Your task to perform on an android device: choose inbox layout in the gmail app Image 0: 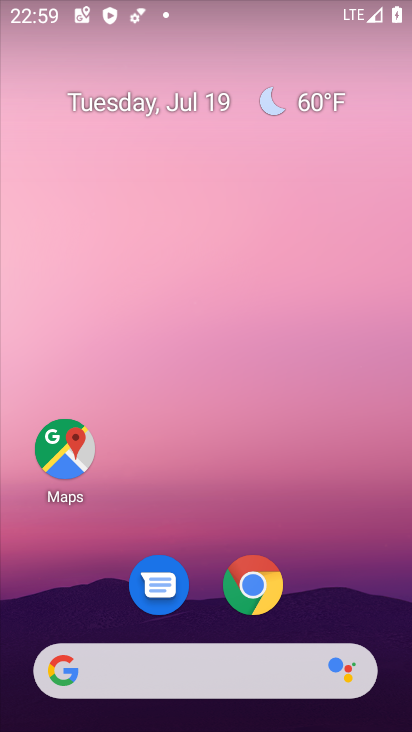
Step 0: drag from (191, 504) to (243, 77)
Your task to perform on an android device: choose inbox layout in the gmail app Image 1: 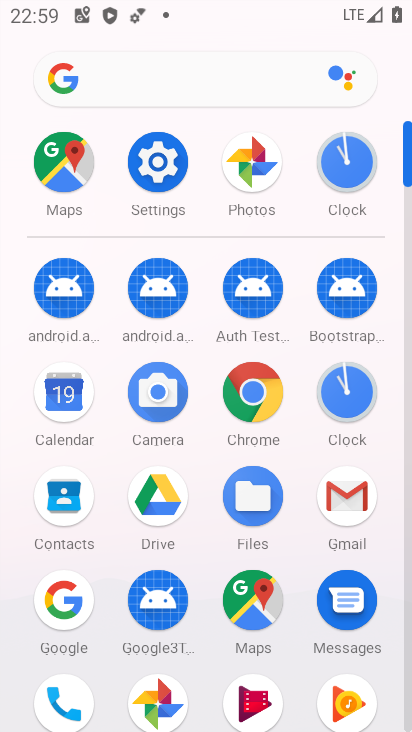
Step 1: click (345, 495)
Your task to perform on an android device: choose inbox layout in the gmail app Image 2: 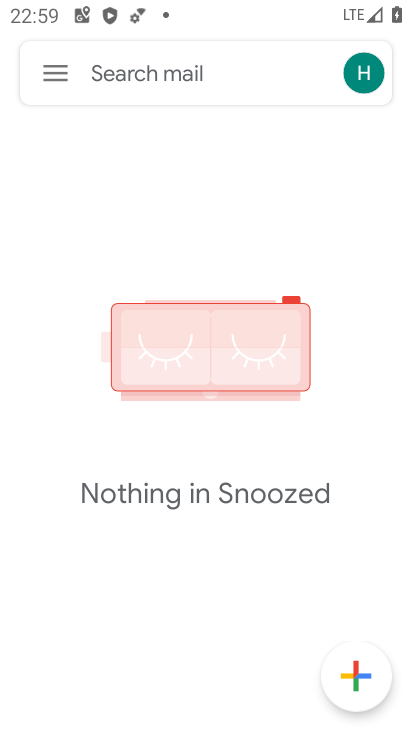
Step 2: click (60, 72)
Your task to perform on an android device: choose inbox layout in the gmail app Image 3: 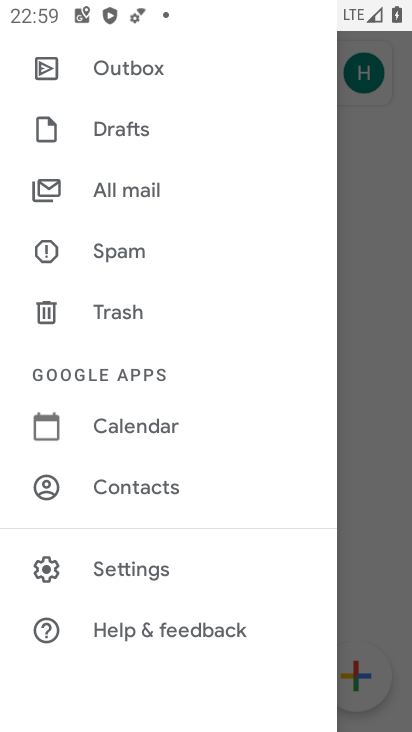
Step 3: click (149, 574)
Your task to perform on an android device: choose inbox layout in the gmail app Image 4: 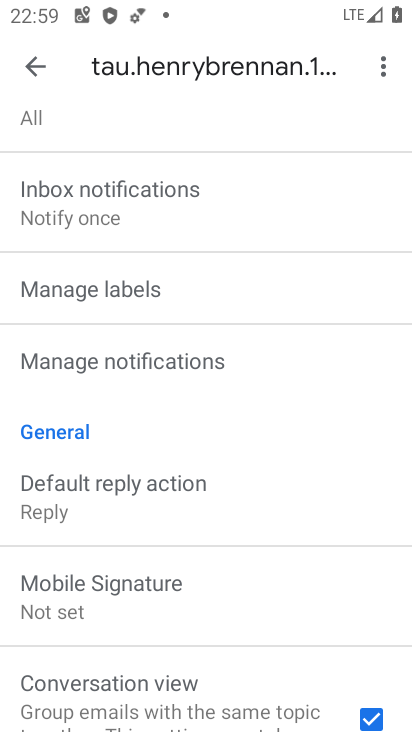
Step 4: drag from (235, 219) to (232, 669)
Your task to perform on an android device: choose inbox layout in the gmail app Image 5: 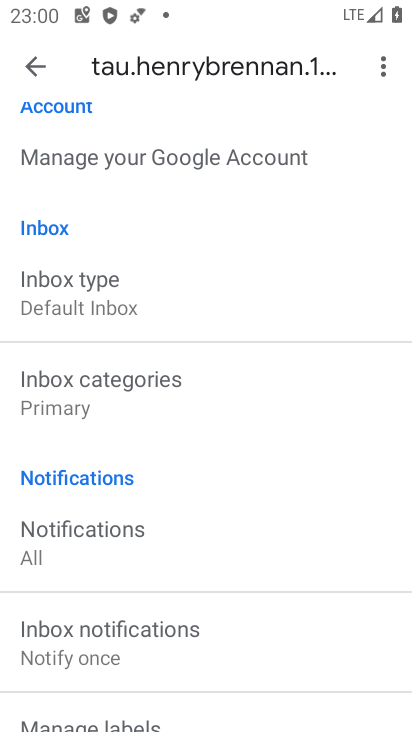
Step 5: click (107, 292)
Your task to perform on an android device: choose inbox layout in the gmail app Image 6: 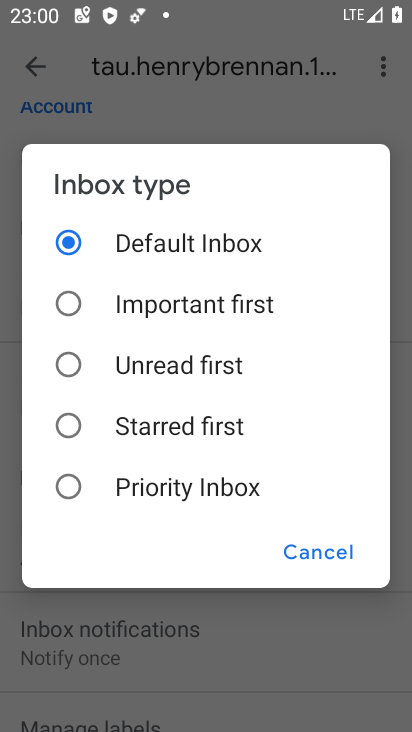
Step 6: click (74, 296)
Your task to perform on an android device: choose inbox layout in the gmail app Image 7: 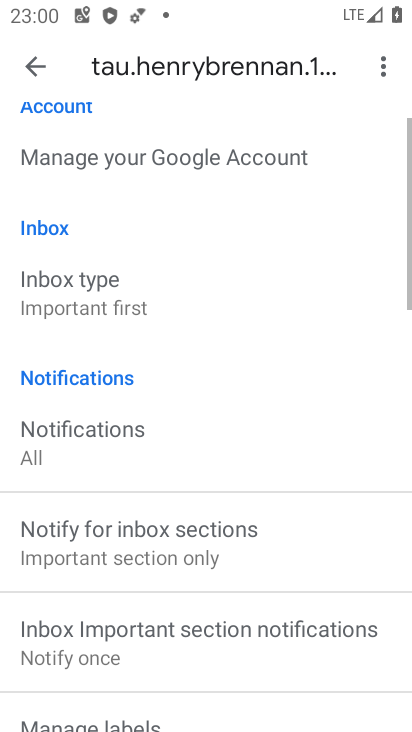
Step 7: task complete